Your task to perform on an android device: remove spam from my inbox in the gmail app Image 0: 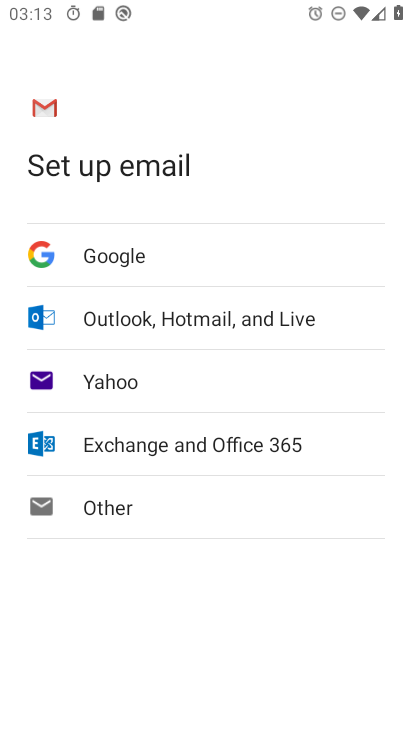
Step 0: press home button
Your task to perform on an android device: remove spam from my inbox in the gmail app Image 1: 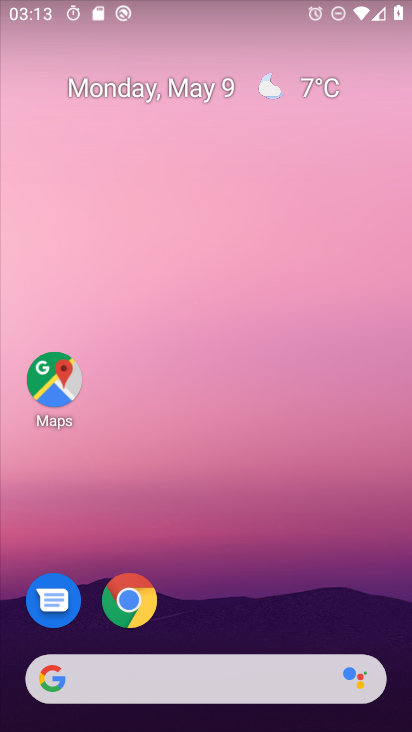
Step 1: drag from (181, 657) to (170, 32)
Your task to perform on an android device: remove spam from my inbox in the gmail app Image 2: 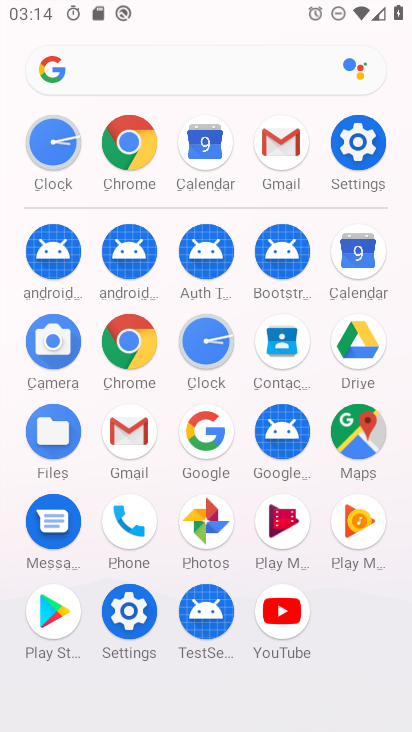
Step 2: click (131, 422)
Your task to perform on an android device: remove spam from my inbox in the gmail app Image 3: 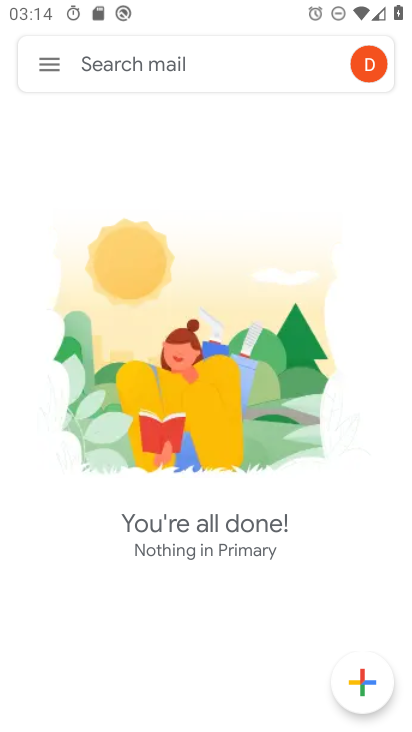
Step 3: click (49, 56)
Your task to perform on an android device: remove spam from my inbox in the gmail app Image 4: 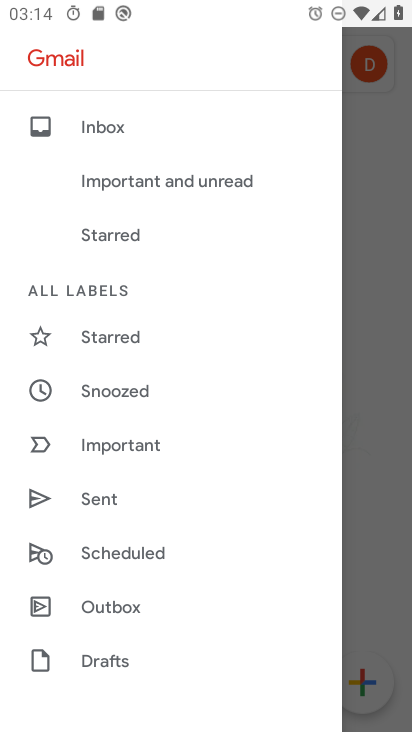
Step 4: drag from (134, 560) to (137, 166)
Your task to perform on an android device: remove spam from my inbox in the gmail app Image 5: 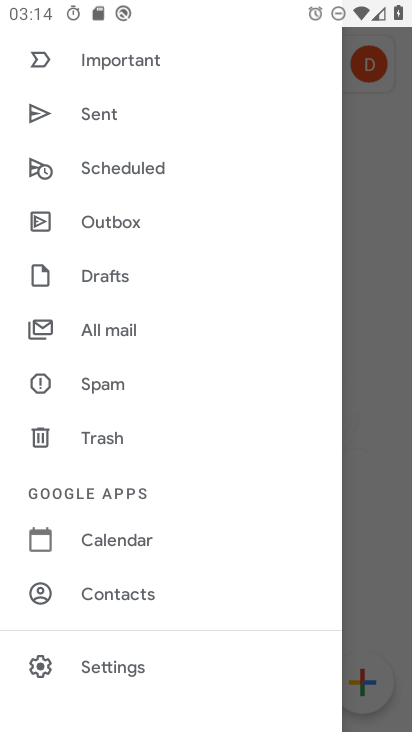
Step 5: click (108, 377)
Your task to perform on an android device: remove spam from my inbox in the gmail app Image 6: 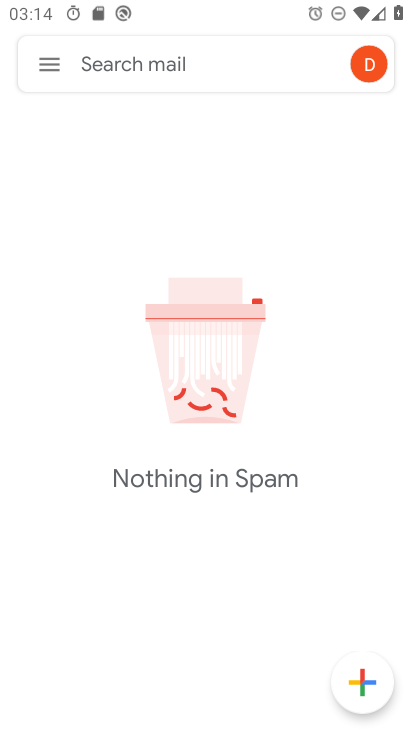
Step 6: task complete